Your task to perform on an android device: open app "Mercado Libre" (install if not already installed) Image 0: 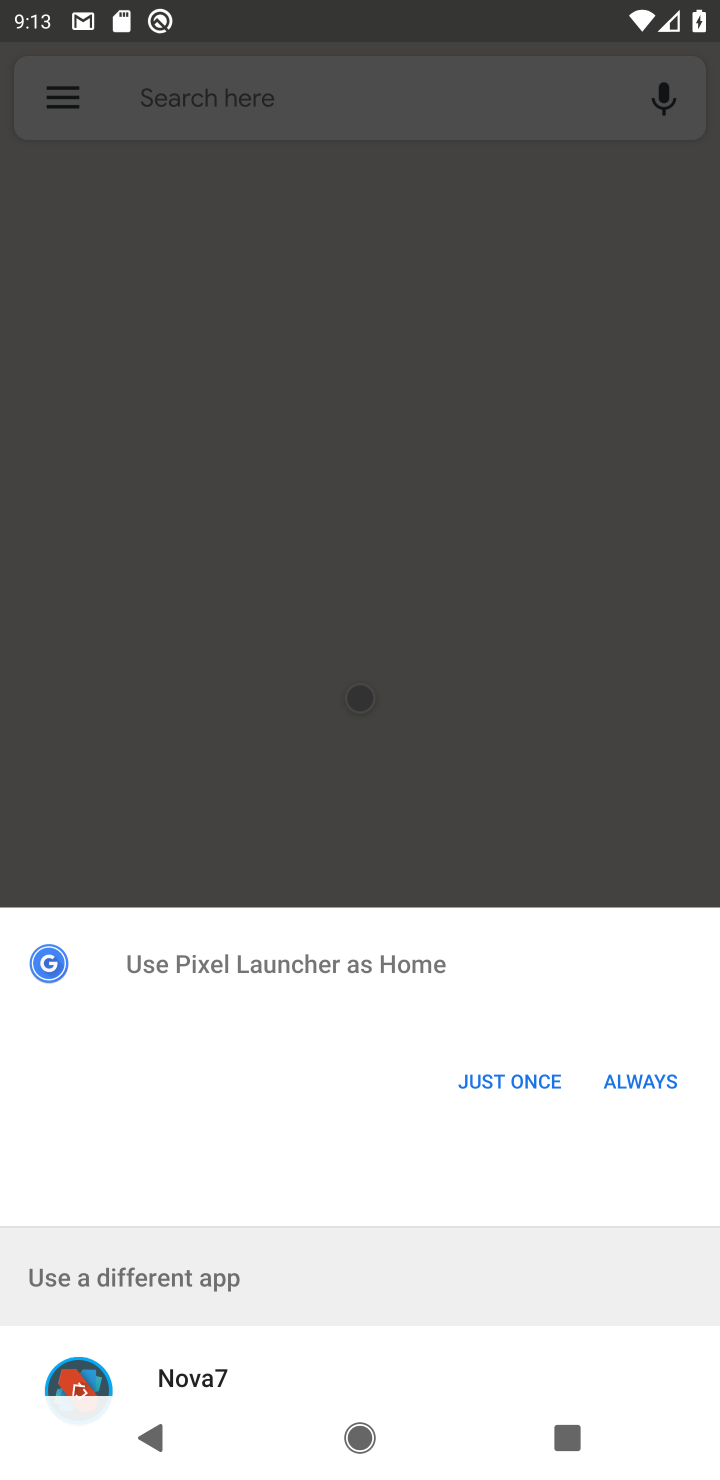
Step 0: press back button
Your task to perform on an android device: open app "Mercado Libre" (install if not already installed) Image 1: 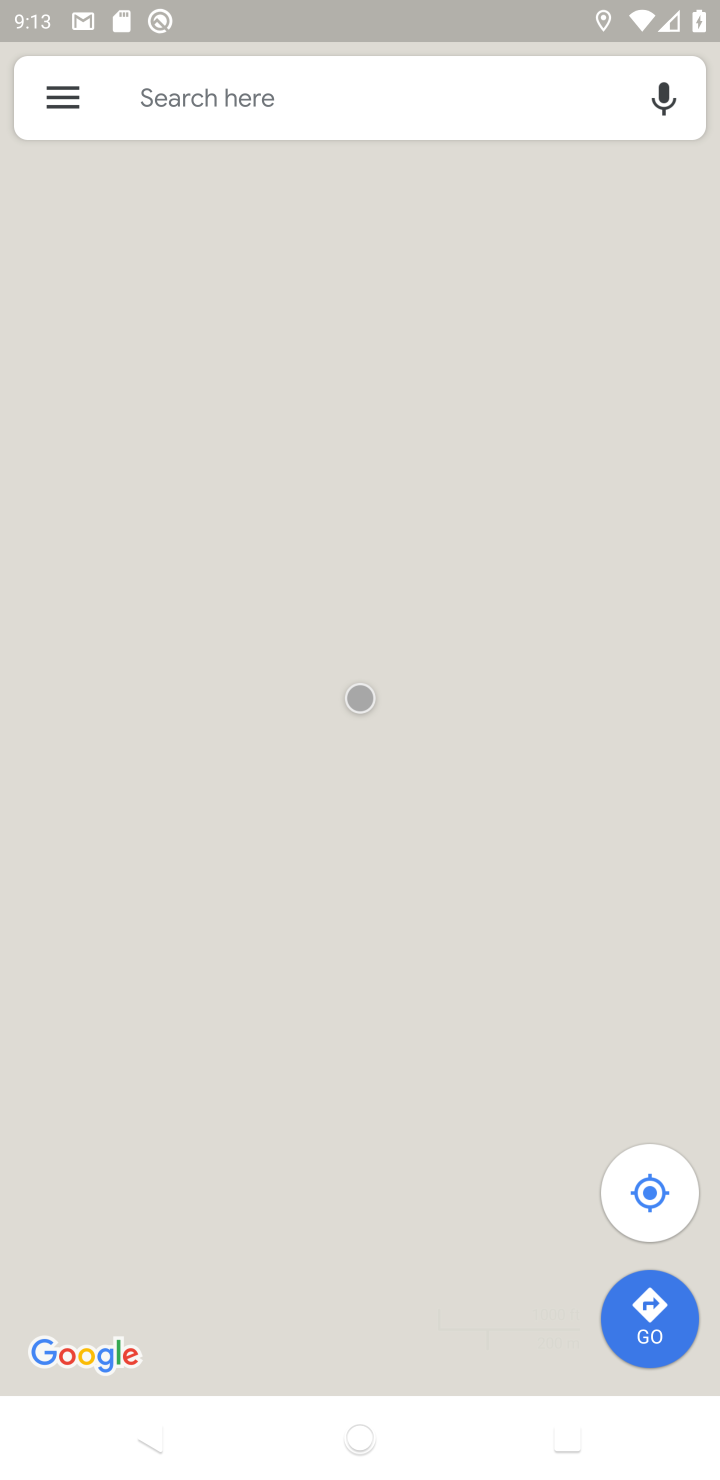
Step 1: click (232, 99)
Your task to perform on an android device: open app "Mercado Libre" (install if not already installed) Image 2: 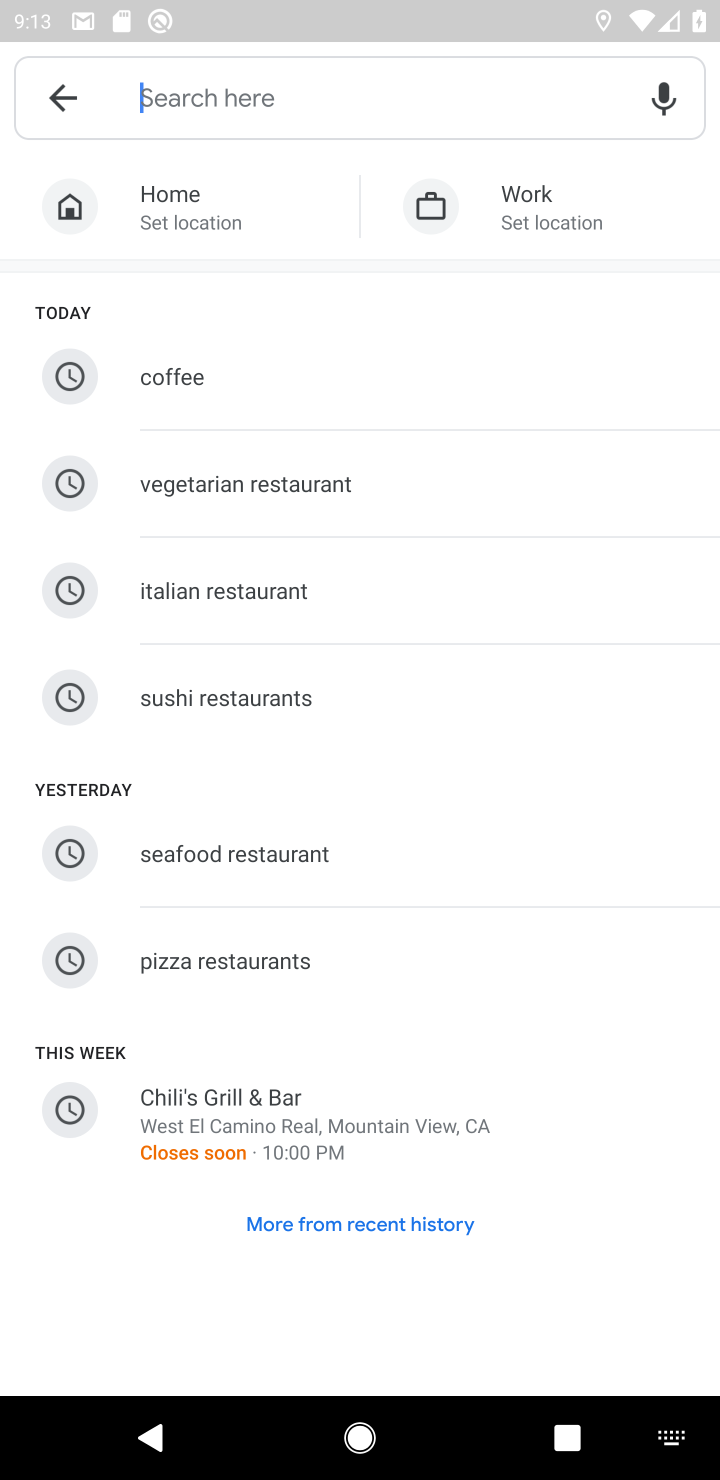
Step 2: type "mercado libre "
Your task to perform on an android device: open app "Mercado Libre" (install if not already installed) Image 3: 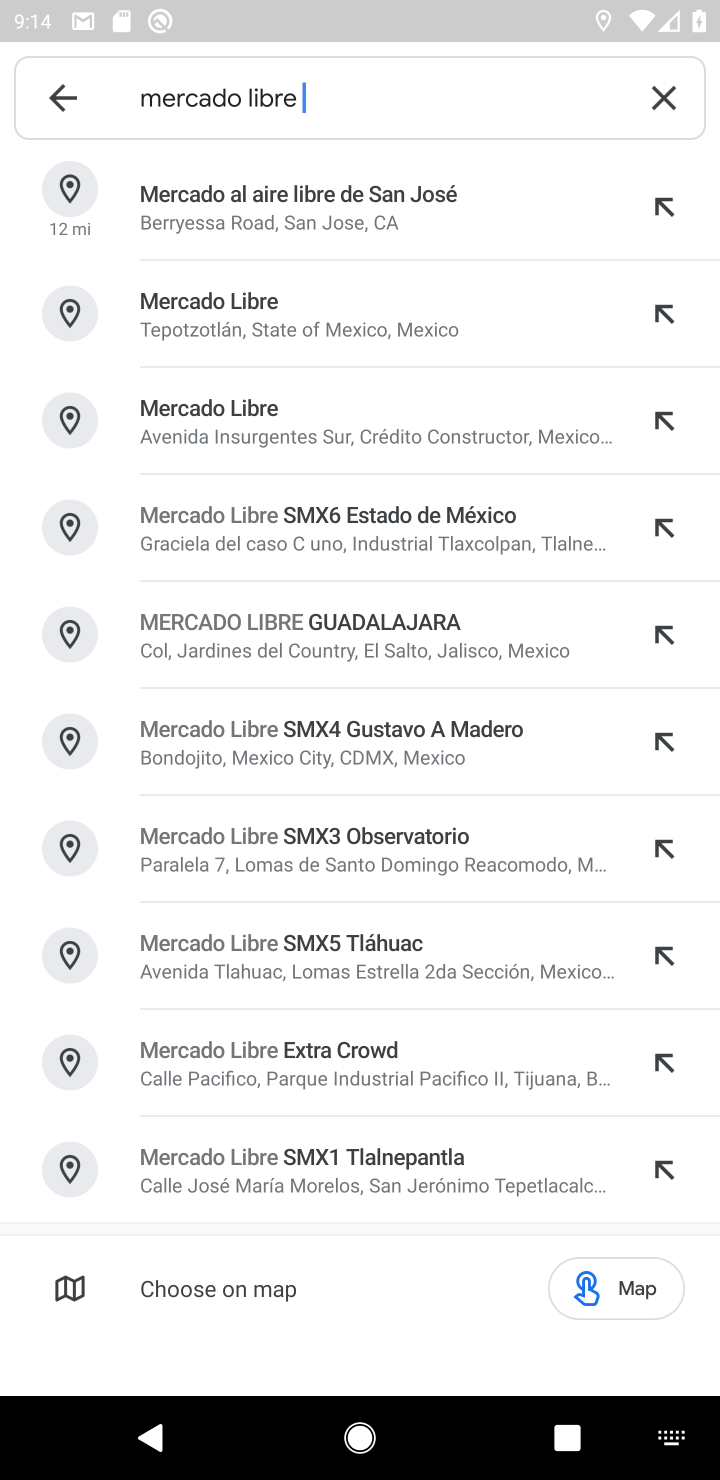
Step 3: press back button
Your task to perform on an android device: open app "Mercado Libre" (install if not already installed) Image 4: 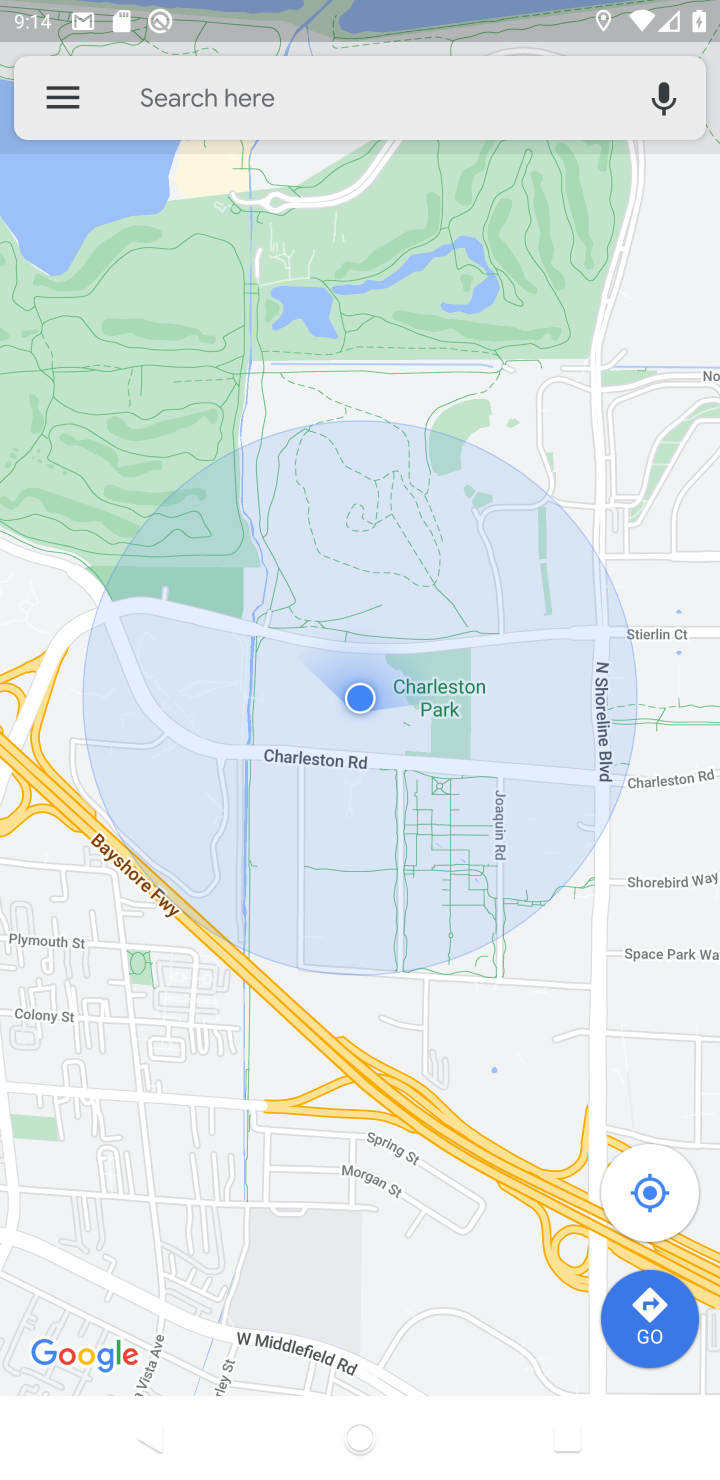
Step 4: press home button
Your task to perform on an android device: open app "Mercado Libre" (install if not already installed) Image 5: 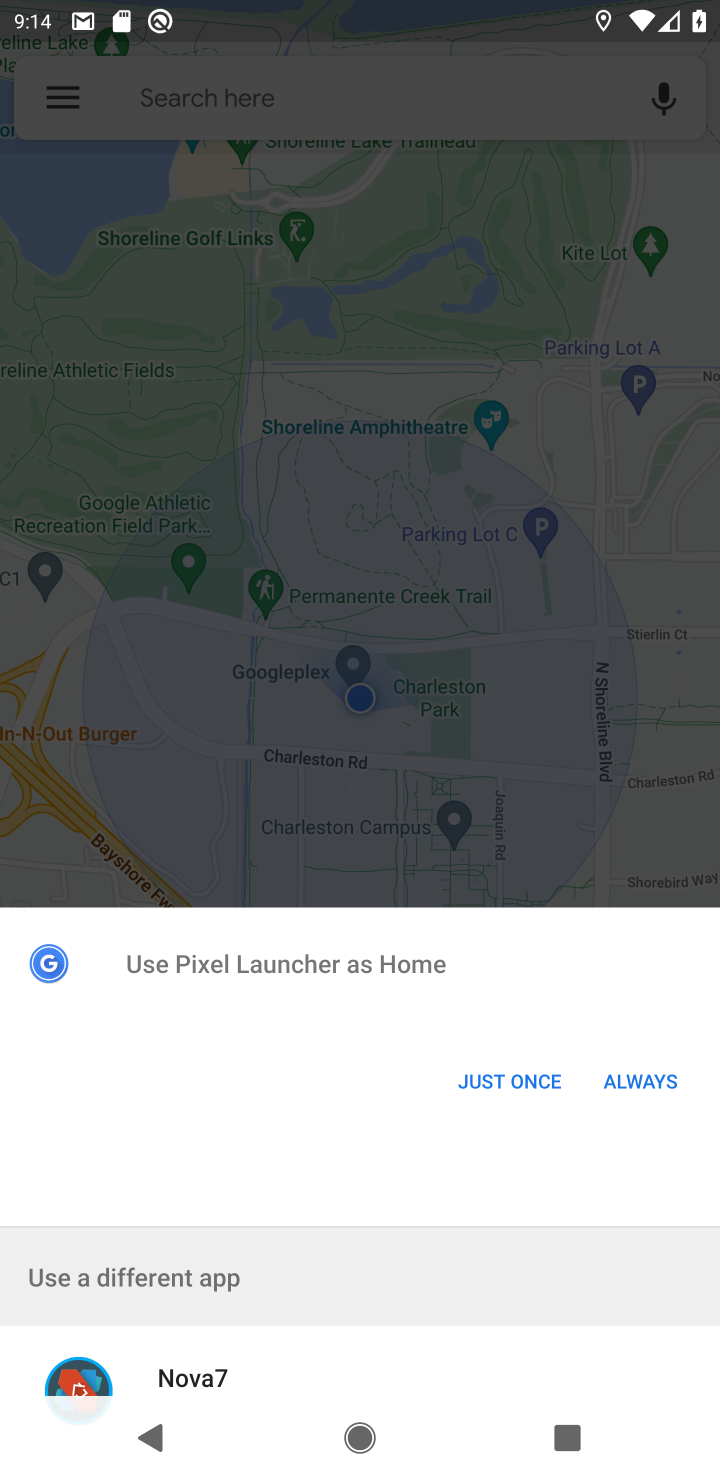
Step 5: press back button
Your task to perform on an android device: open app "Mercado Libre" (install if not already installed) Image 6: 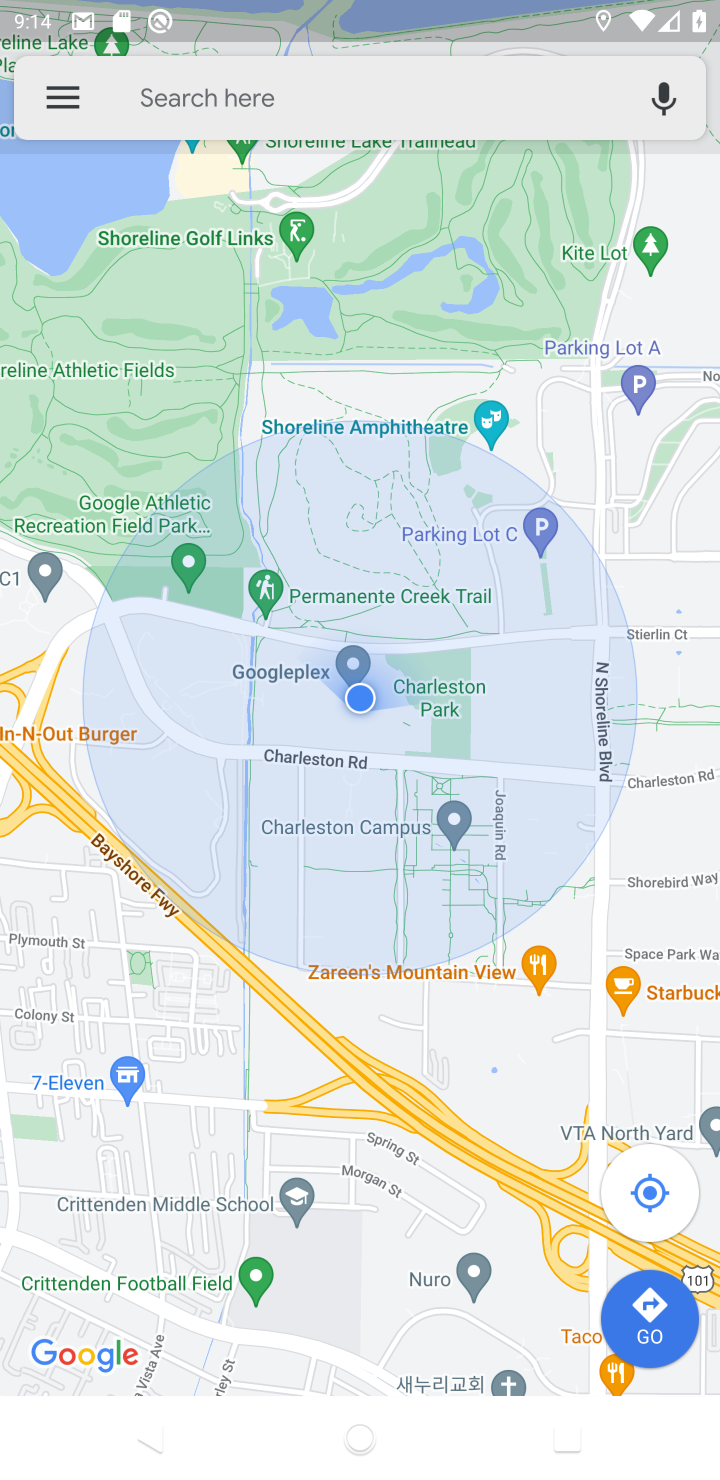
Step 6: press back button
Your task to perform on an android device: open app "Mercado Libre" (install if not already installed) Image 7: 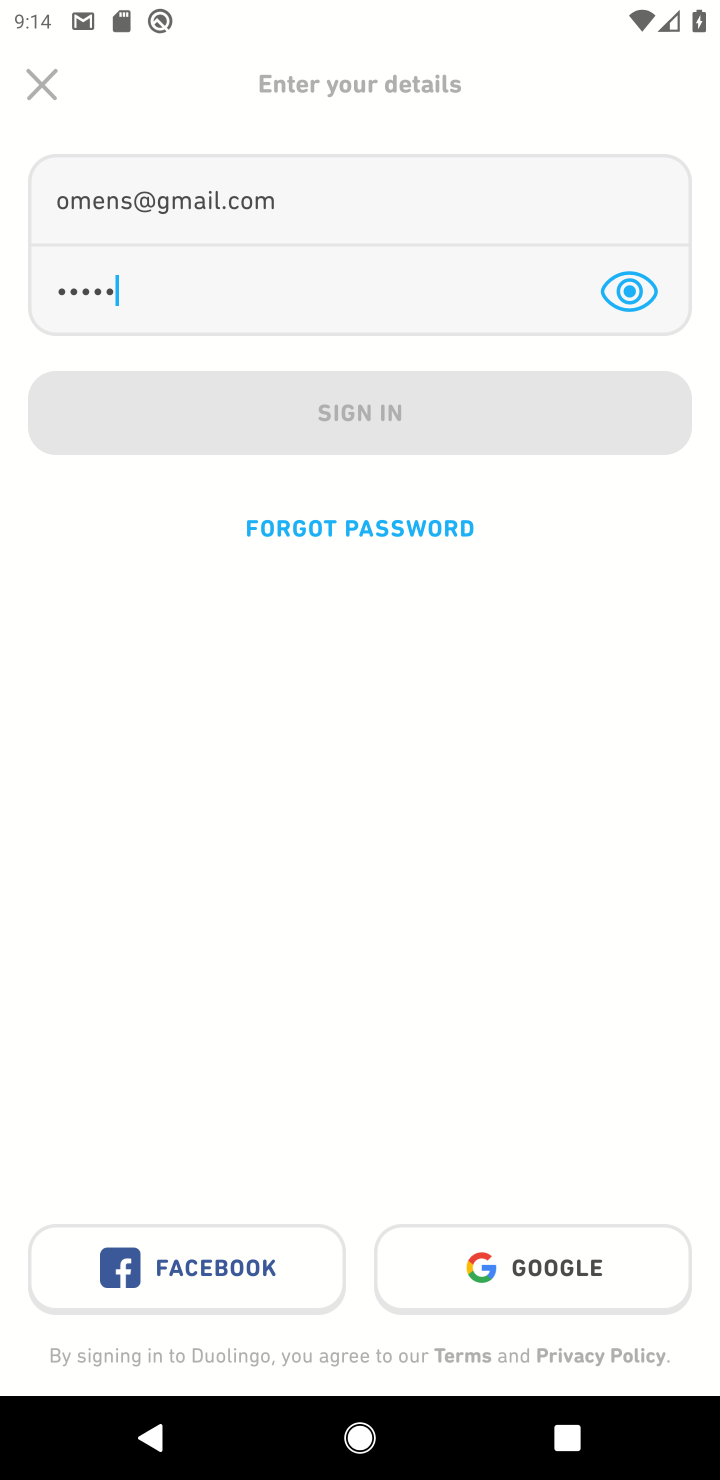
Step 7: press back button
Your task to perform on an android device: open app "Mercado Libre" (install if not already installed) Image 8: 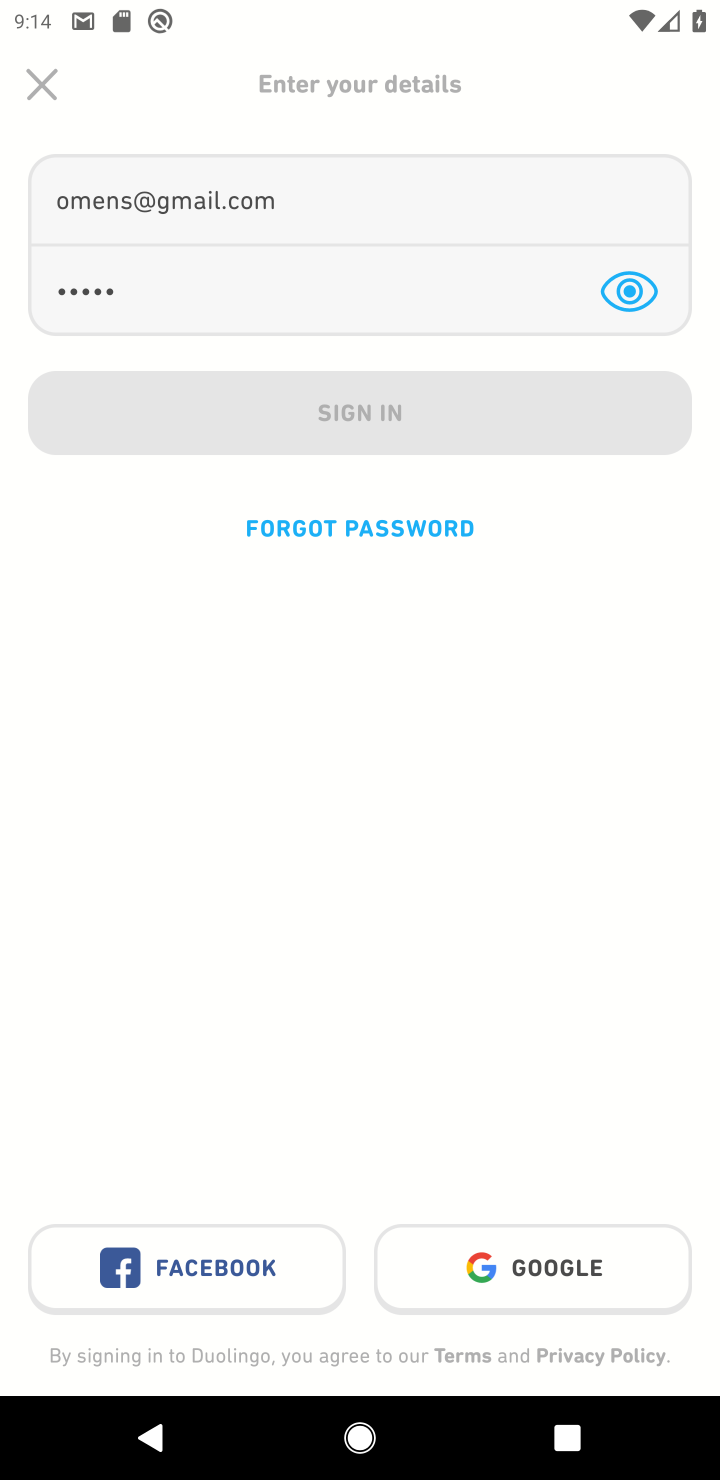
Step 8: press back button
Your task to perform on an android device: open app "Mercado Libre" (install if not already installed) Image 9: 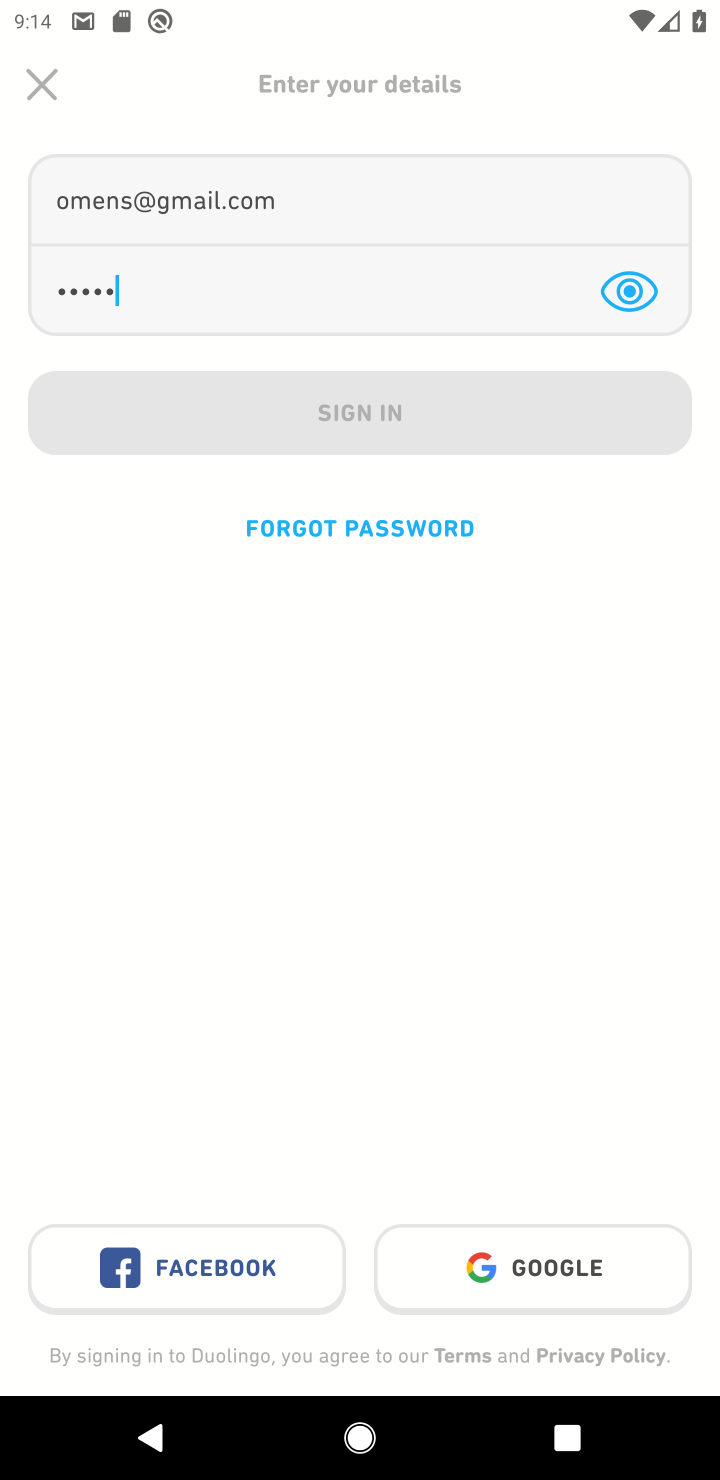
Step 9: press home button
Your task to perform on an android device: open app "Mercado Libre" (install if not already installed) Image 10: 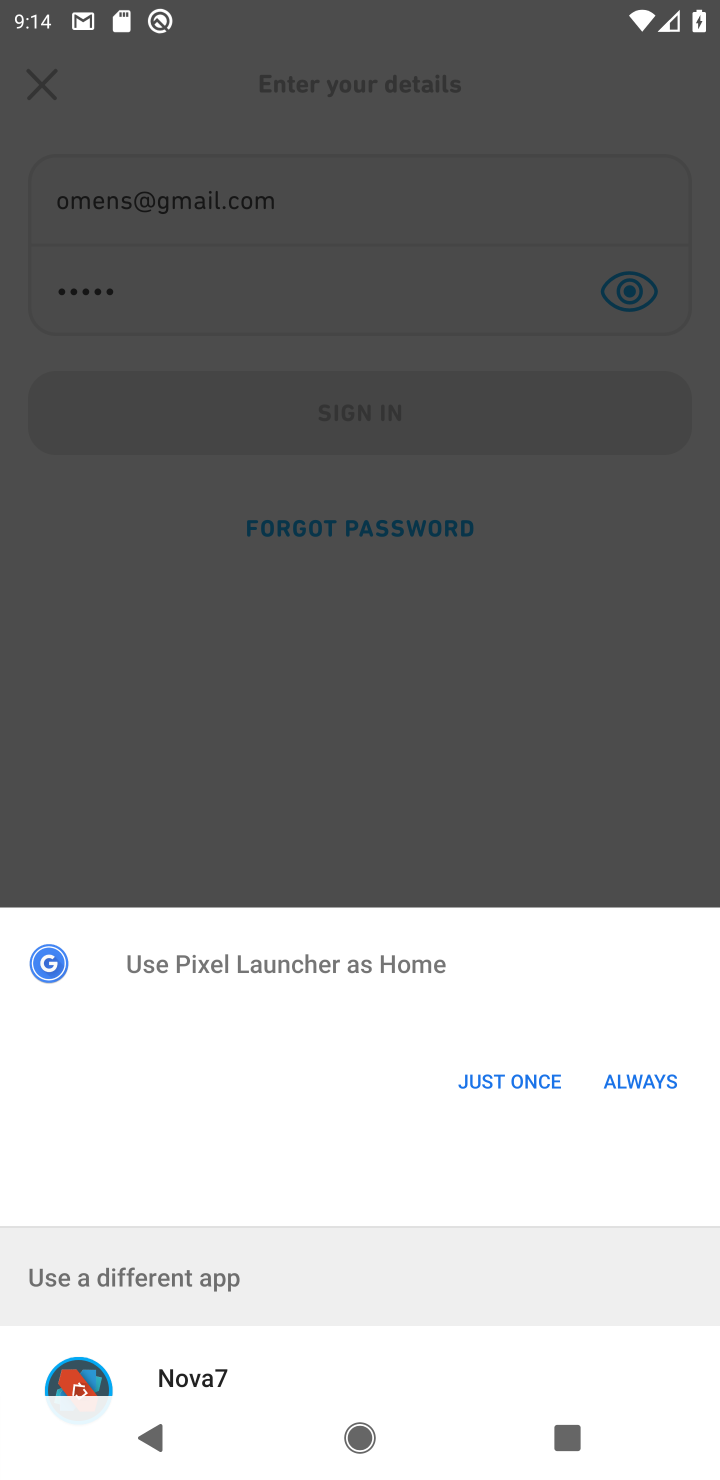
Step 10: press back button
Your task to perform on an android device: open app "Mercado Libre" (install if not already installed) Image 11: 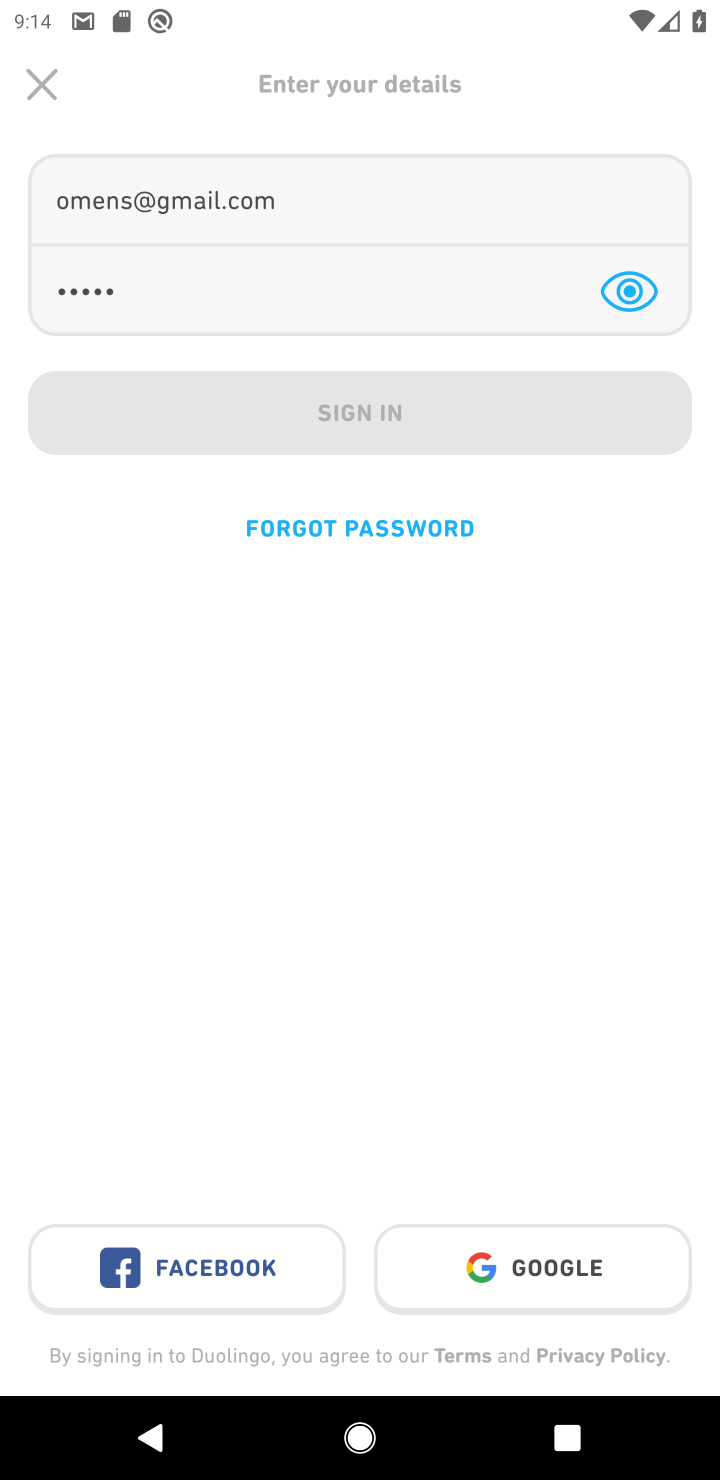
Step 11: click (51, 67)
Your task to perform on an android device: open app "Mercado Libre" (install if not already installed) Image 12: 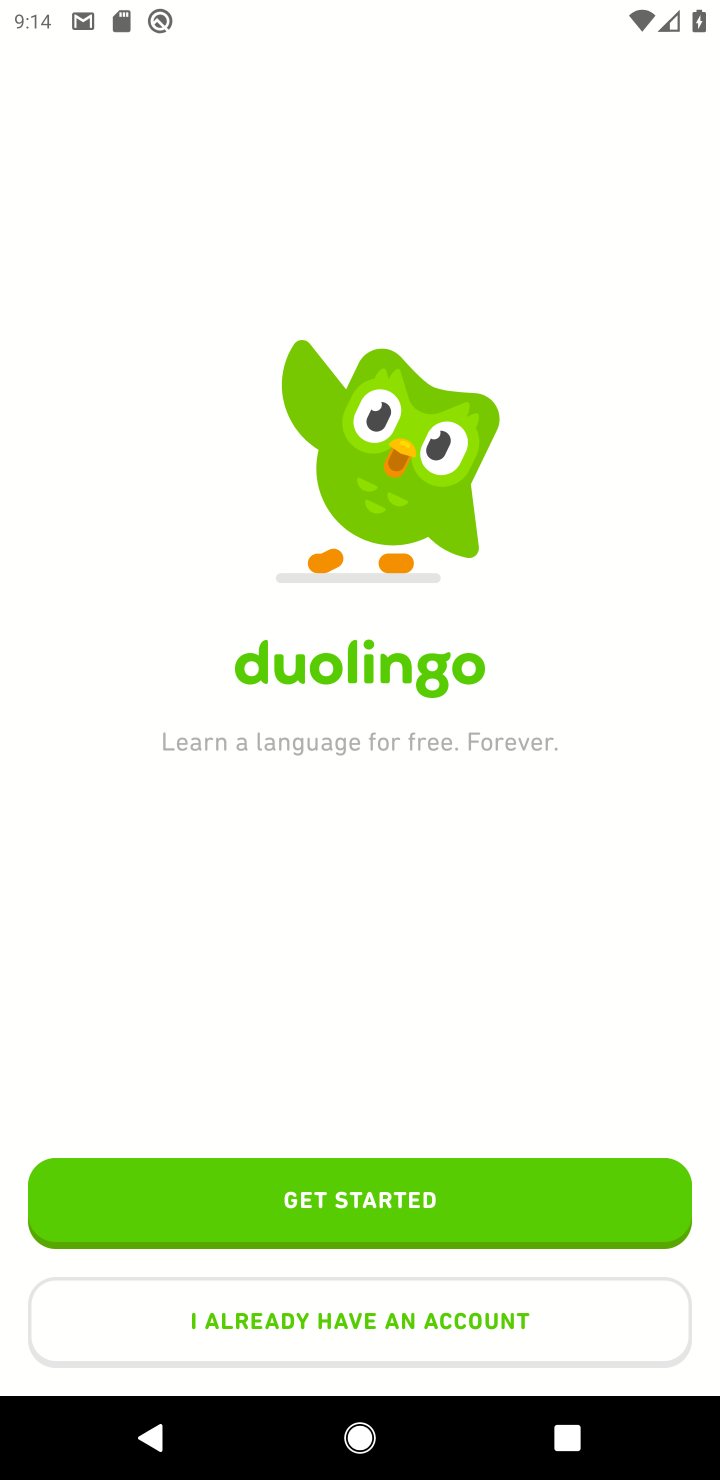
Step 12: press back button
Your task to perform on an android device: open app "Mercado Libre" (install if not already installed) Image 13: 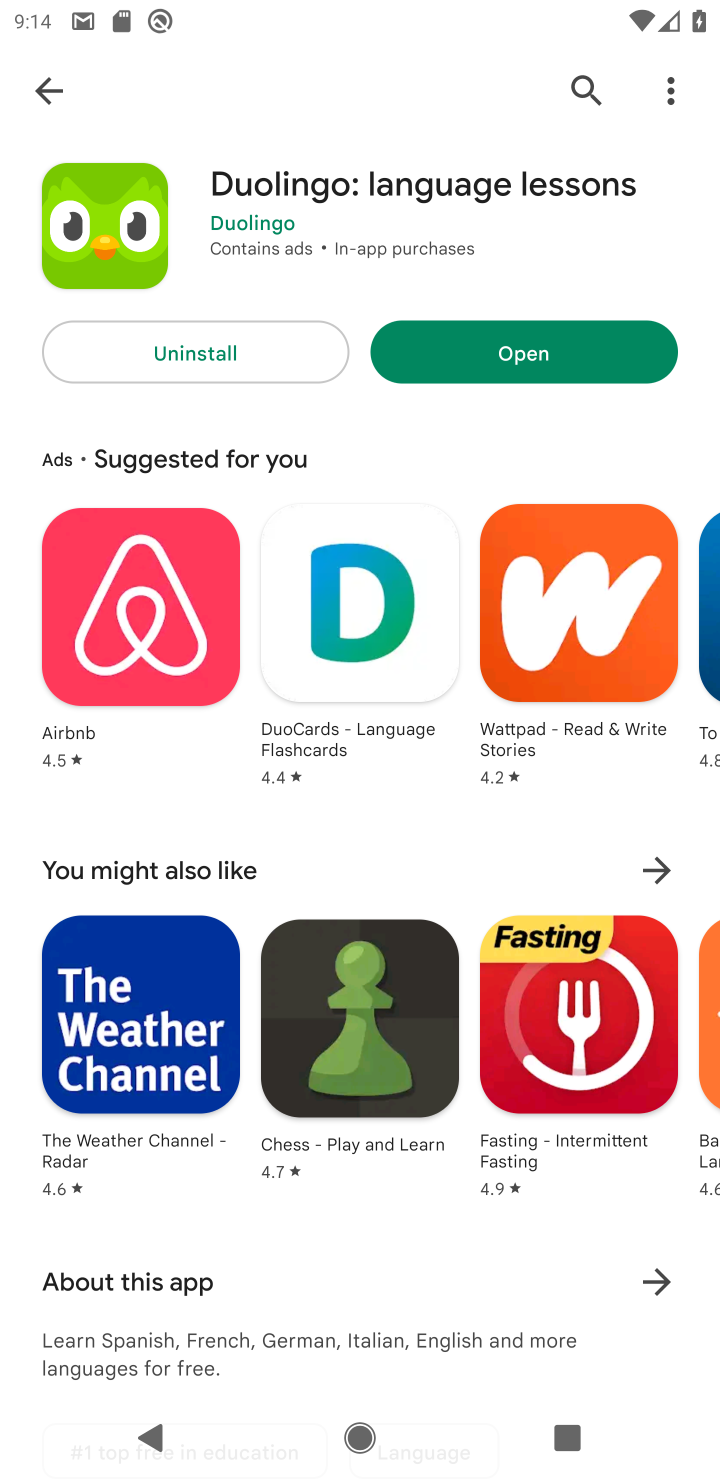
Step 13: click (576, 85)
Your task to perform on an android device: open app "Mercado Libre" (install if not already installed) Image 14: 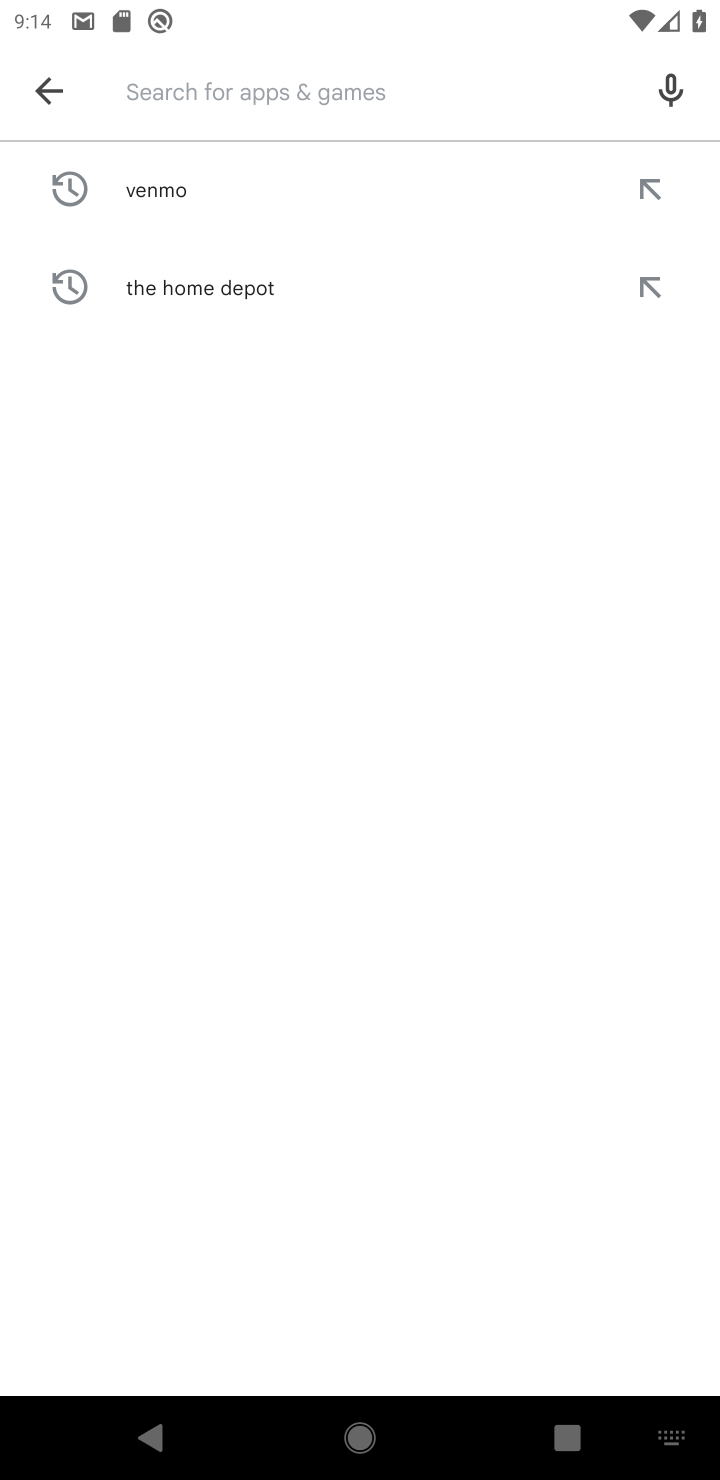
Step 14: click (234, 87)
Your task to perform on an android device: open app "Mercado Libre" (install if not already installed) Image 15: 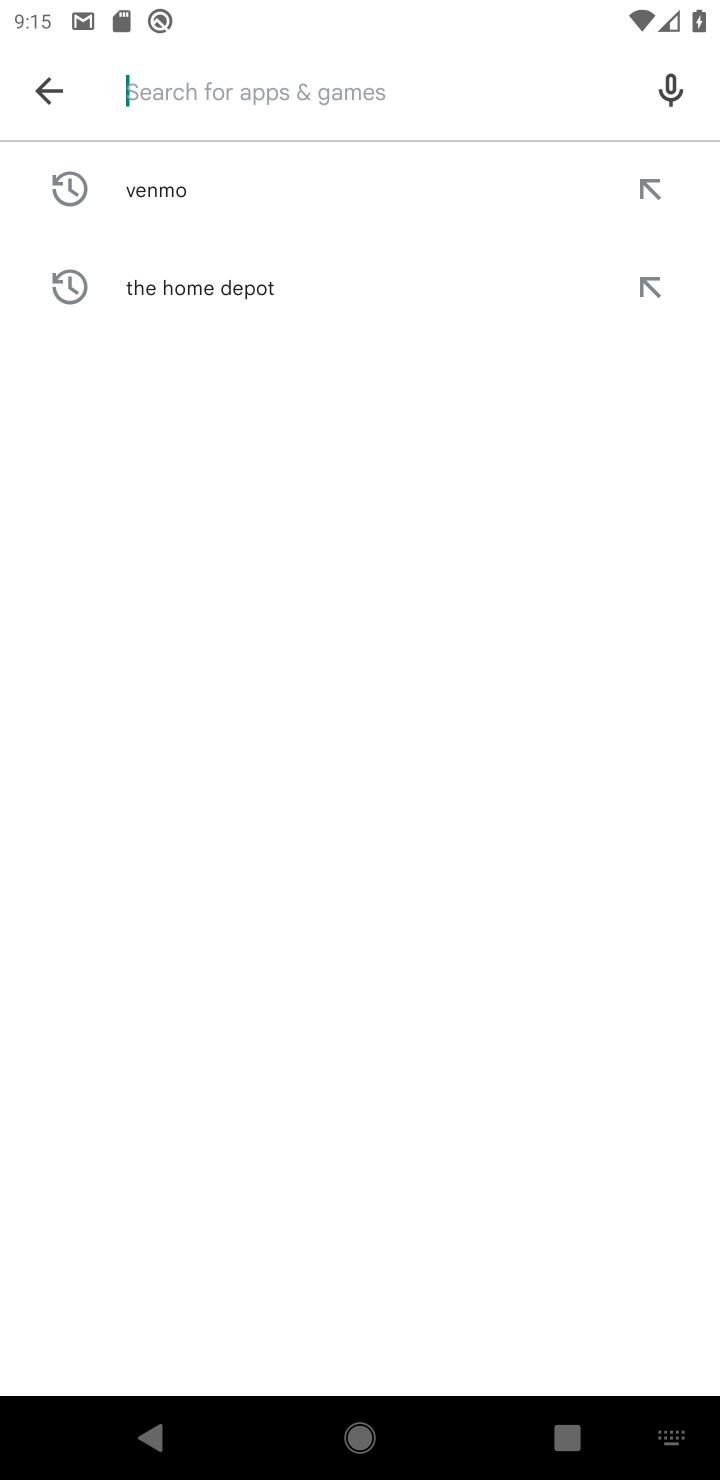
Step 15: type "mercado libre "
Your task to perform on an android device: open app "Mercado Libre" (install if not already installed) Image 16: 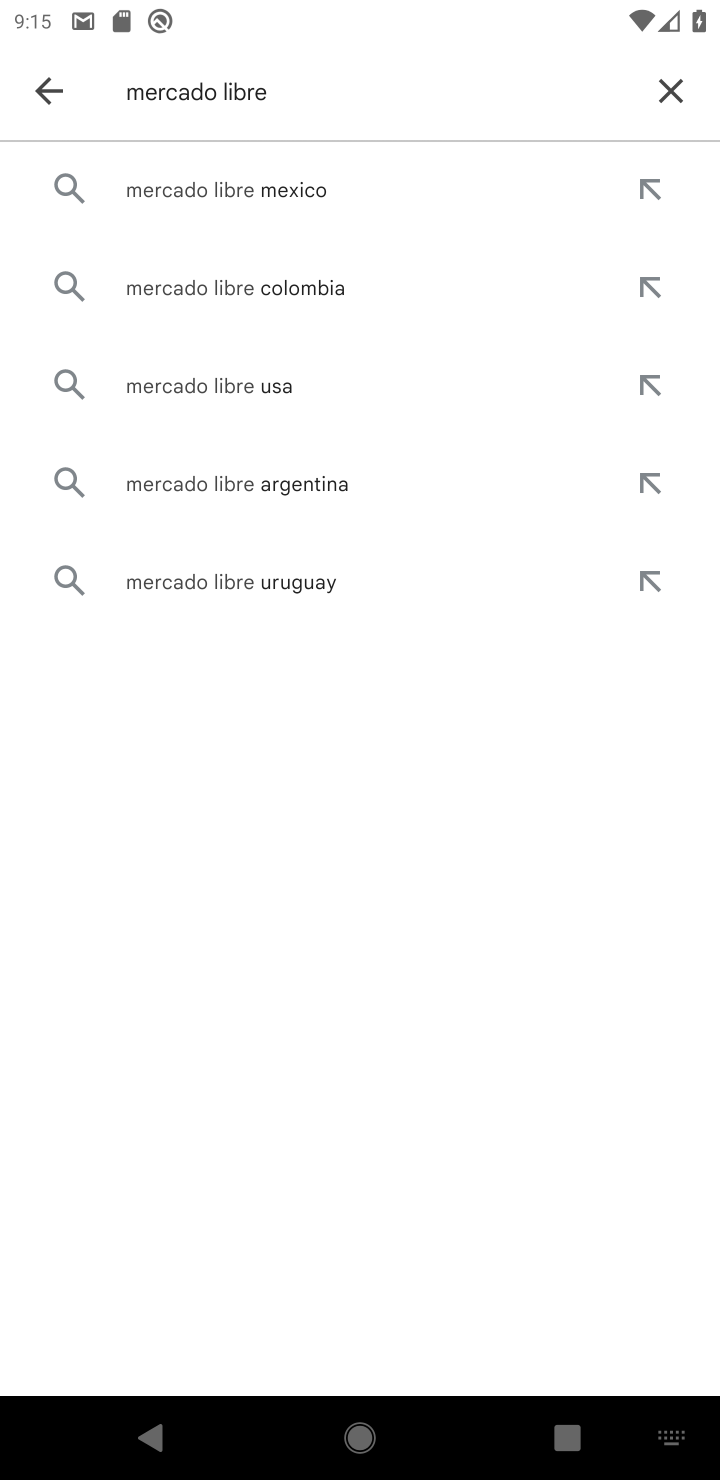
Step 16: task complete